Your task to perform on an android device: turn on improve location accuracy Image 0: 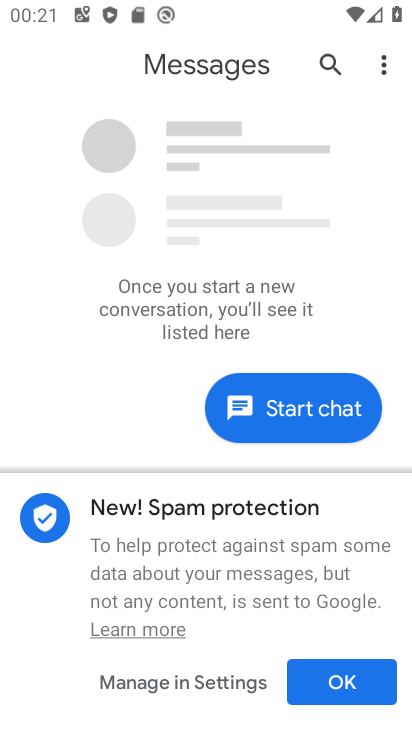
Step 0: press home button
Your task to perform on an android device: turn on improve location accuracy Image 1: 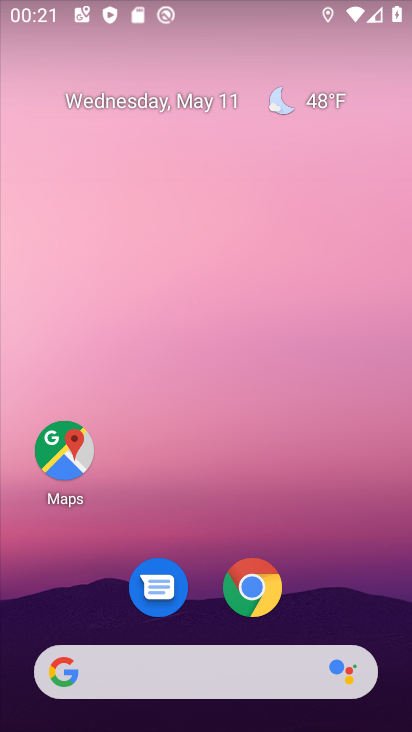
Step 1: drag from (336, 611) to (297, 237)
Your task to perform on an android device: turn on improve location accuracy Image 2: 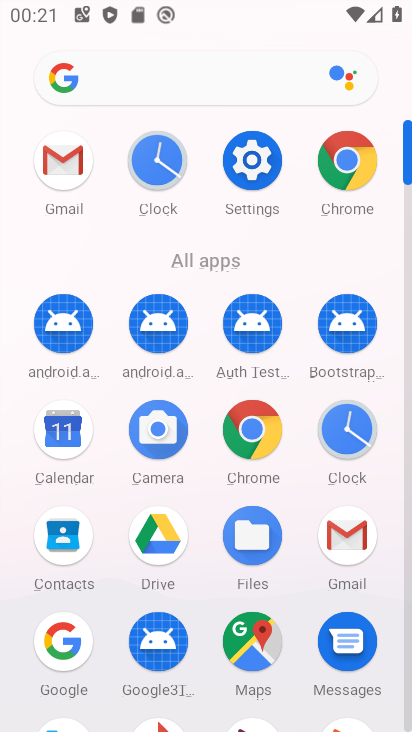
Step 2: drag from (294, 588) to (257, 261)
Your task to perform on an android device: turn on improve location accuracy Image 3: 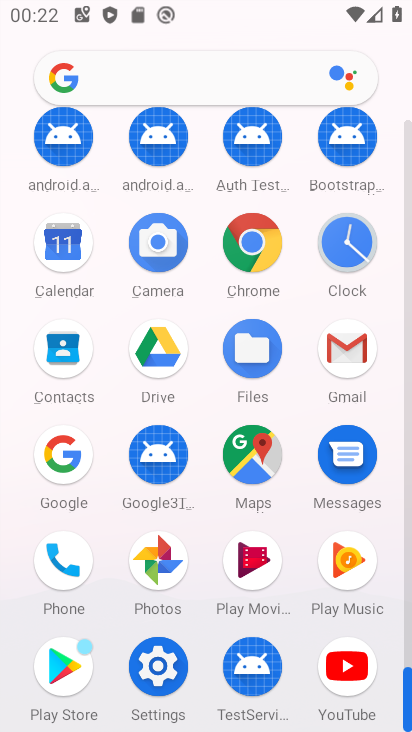
Step 3: click (161, 678)
Your task to perform on an android device: turn on improve location accuracy Image 4: 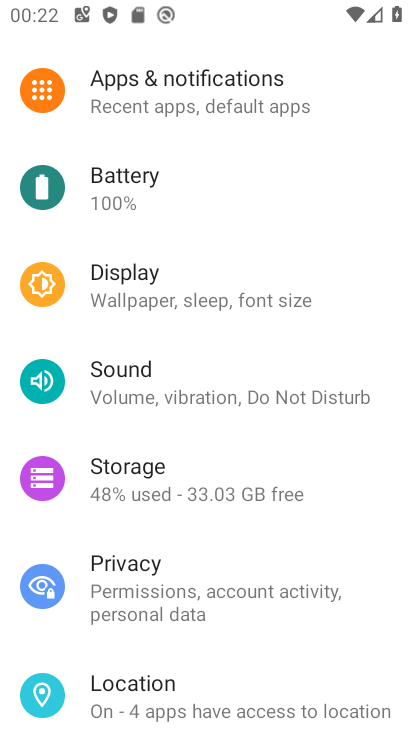
Step 4: click (223, 688)
Your task to perform on an android device: turn on improve location accuracy Image 5: 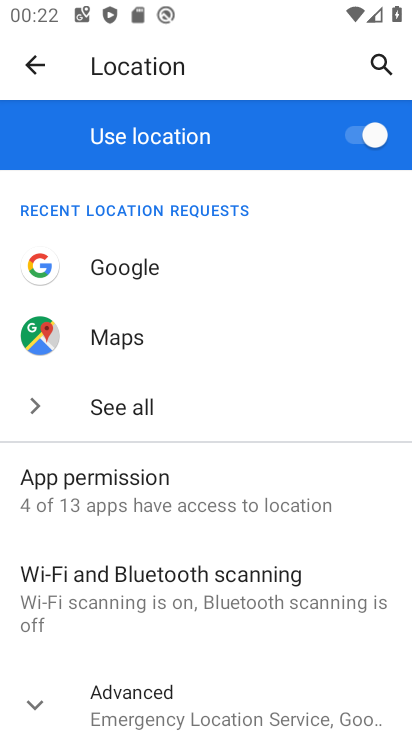
Step 5: drag from (224, 683) to (184, 533)
Your task to perform on an android device: turn on improve location accuracy Image 6: 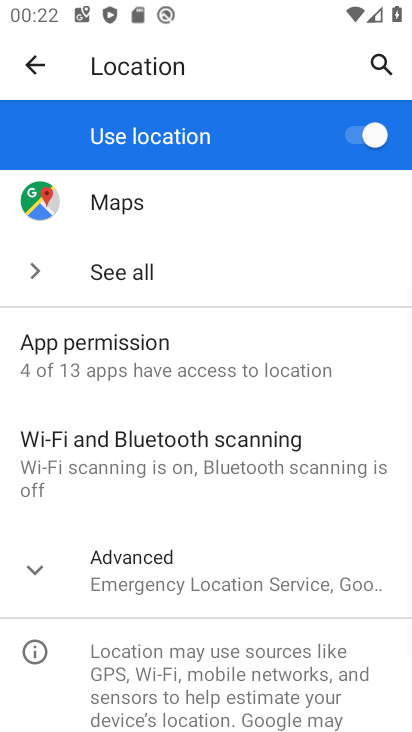
Step 6: click (187, 566)
Your task to perform on an android device: turn on improve location accuracy Image 7: 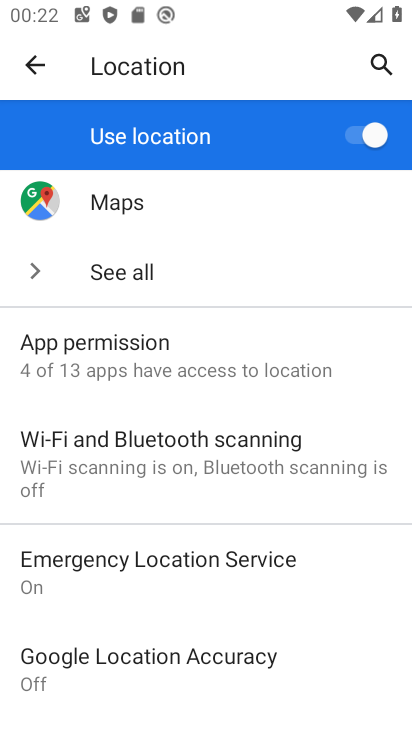
Step 7: click (203, 653)
Your task to perform on an android device: turn on improve location accuracy Image 8: 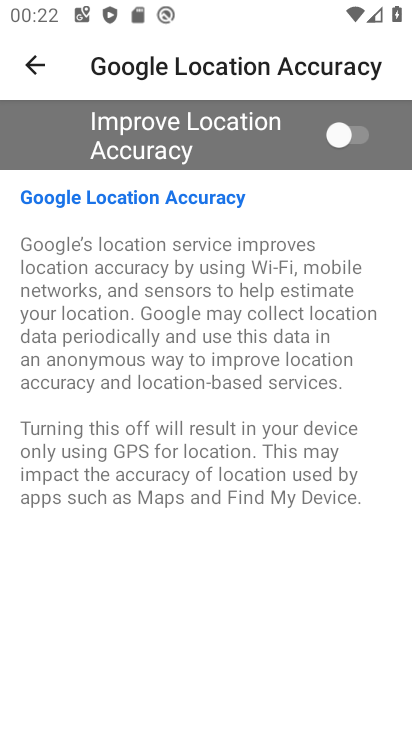
Step 8: click (345, 129)
Your task to perform on an android device: turn on improve location accuracy Image 9: 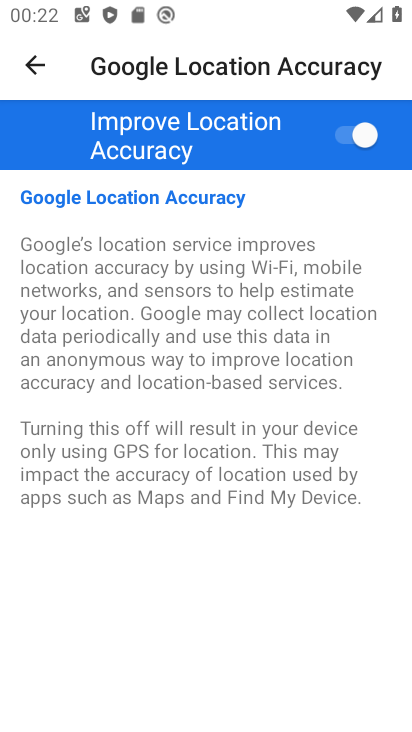
Step 9: task complete